Your task to perform on an android device: toggle priority inbox in the gmail app Image 0: 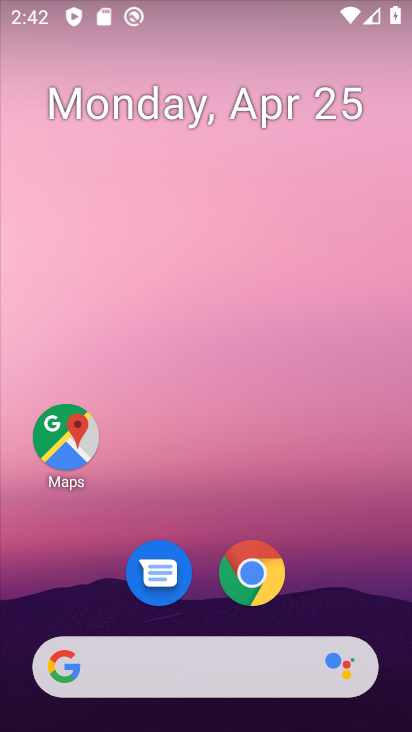
Step 0: drag from (334, 525) to (230, 89)
Your task to perform on an android device: toggle priority inbox in the gmail app Image 1: 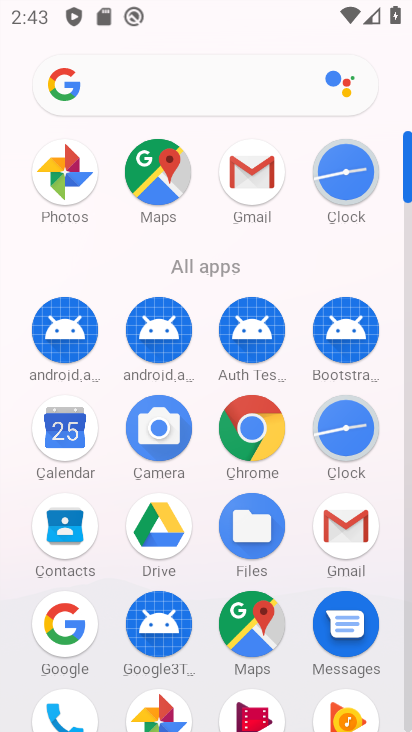
Step 1: click (263, 173)
Your task to perform on an android device: toggle priority inbox in the gmail app Image 2: 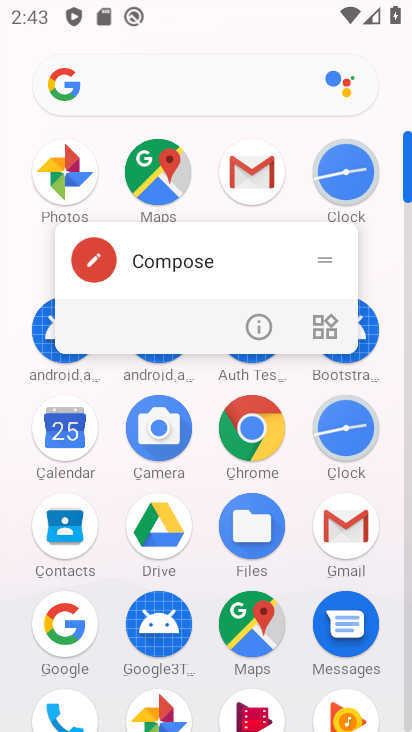
Step 2: click (237, 186)
Your task to perform on an android device: toggle priority inbox in the gmail app Image 3: 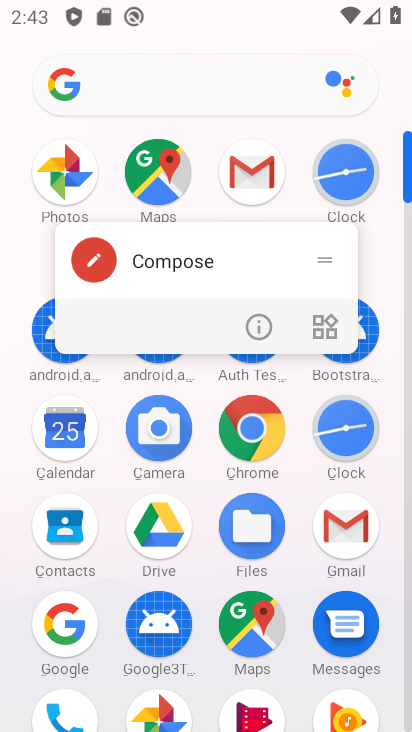
Step 3: click (256, 175)
Your task to perform on an android device: toggle priority inbox in the gmail app Image 4: 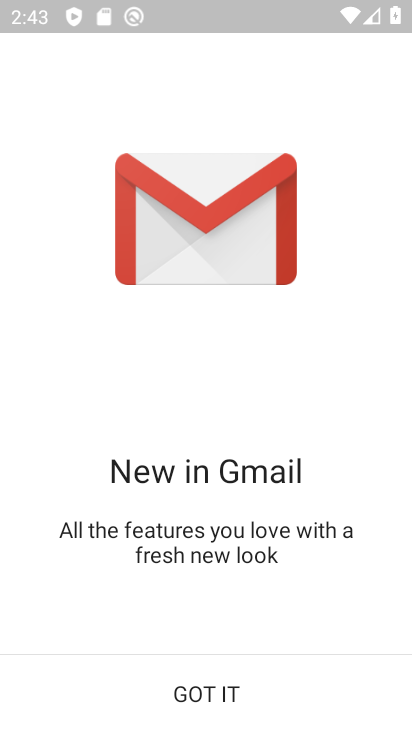
Step 4: click (238, 694)
Your task to perform on an android device: toggle priority inbox in the gmail app Image 5: 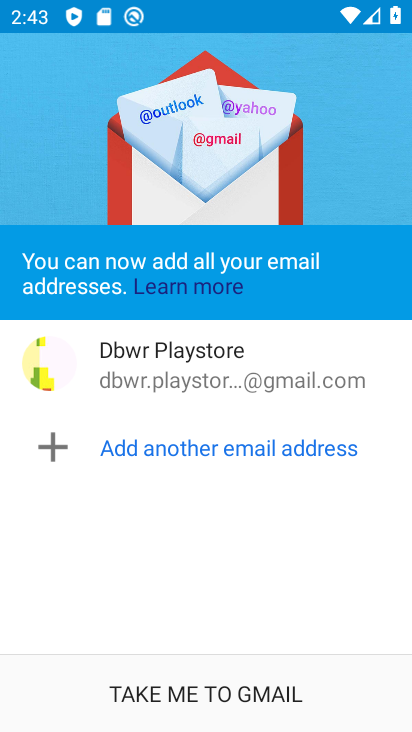
Step 5: click (268, 690)
Your task to perform on an android device: toggle priority inbox in the gmail app Image 6: 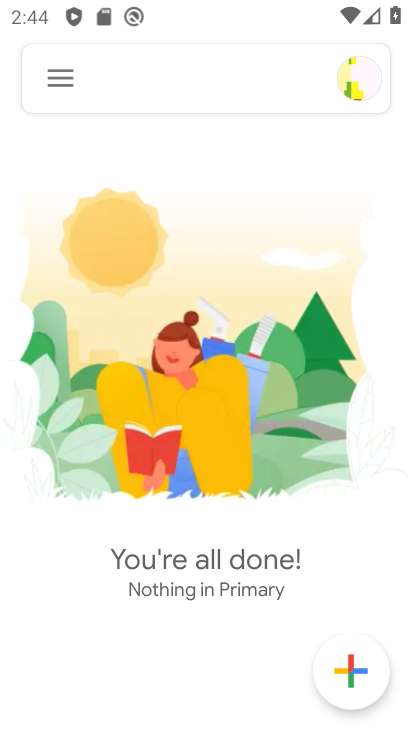
Step 6: click (65, 84)
Your task to perform on an android device: toggle priority inbox in the gmail app Image 7: 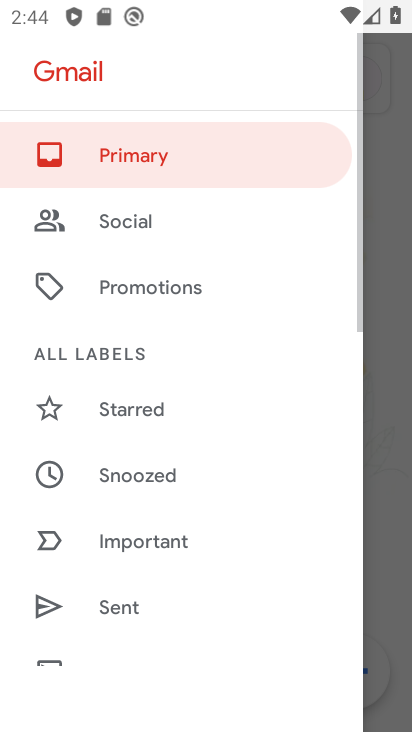
Step 7: drag from (159, 569) to (154, 148)
Your task to perform on an android device: toggle priority inbox in the gmail app Image 8: 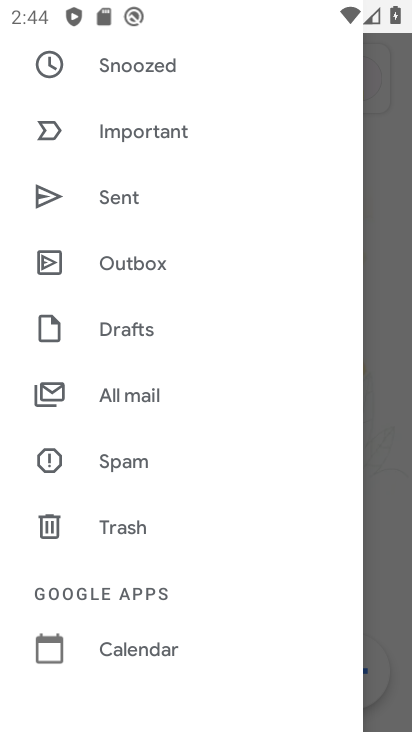
Step 8: drag from (171, 395) to (184, 183)
Your task to perform on an android device: toggle priority inbox in the gmail app Image 9: 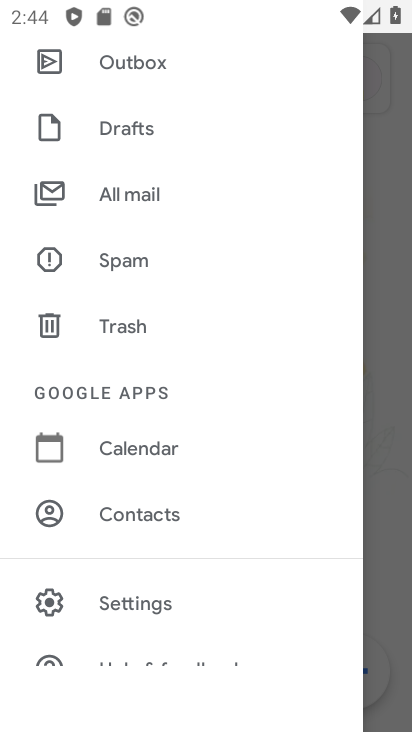
Step 9: click (145, 593)
Your task to perform on an android device: toggle priority inbox in the gmail app Image 10: 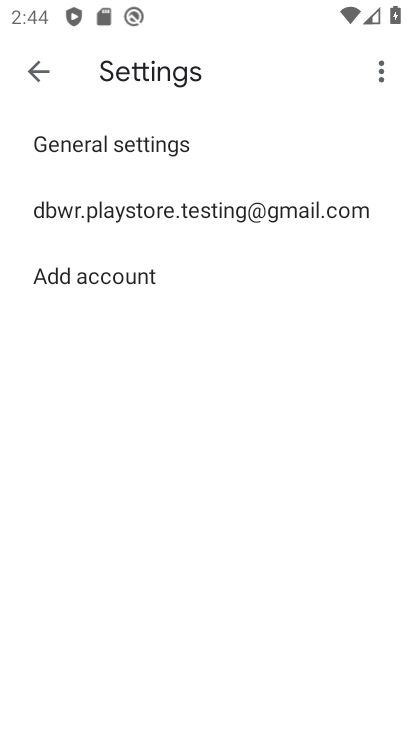
Step 10: click (193, 212)
Your task to perform on an android device: toggle priority inbox in the gmail app Image 11: 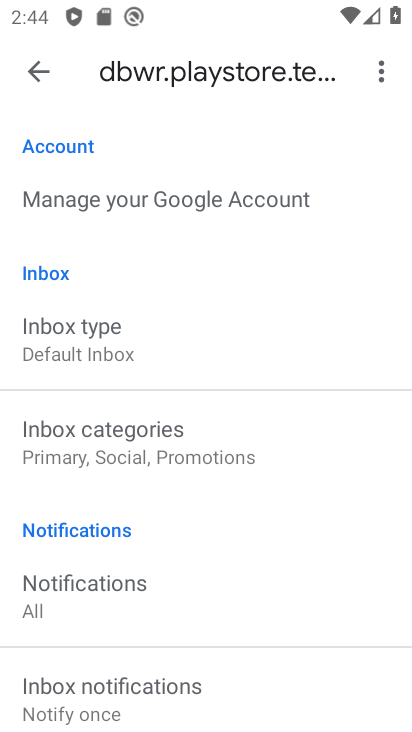
Step 11: drag from (168, 590) to (133, 382)
Your task to perform on an android device: toggle priority inbox in the gmail app Image 12: 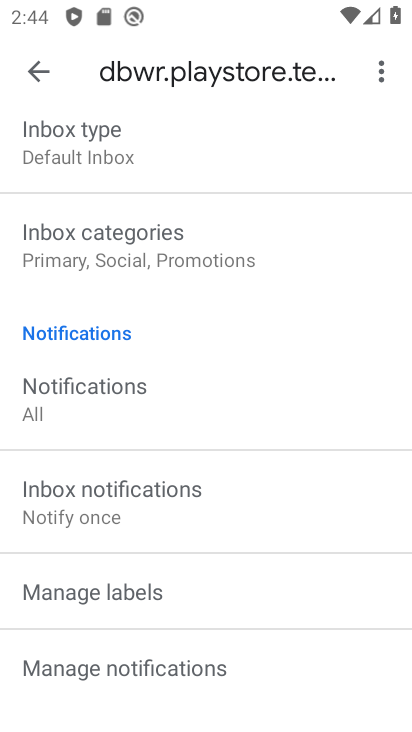
Step 12: click (83, 152)
Your task to perform on an android device: toggle priority inbox in the gmail app Image 13: 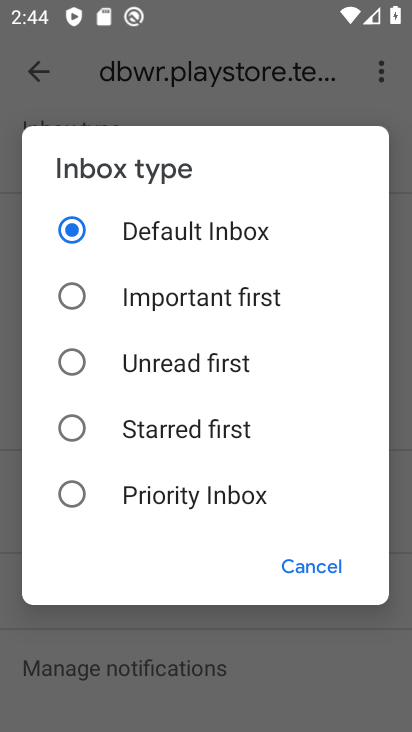
Step 13: click (131, 487)
Your task to perform on an android device: toggle priority inbox in the gmail app Image 14: 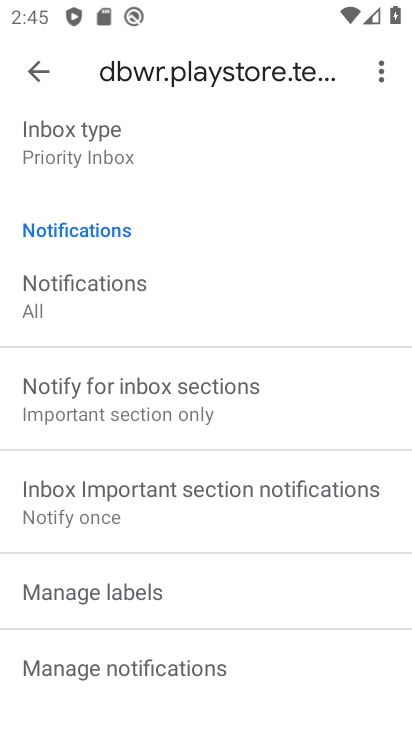
Step 14: task complete